Your task to perform on an android device: Open maps Image 0: 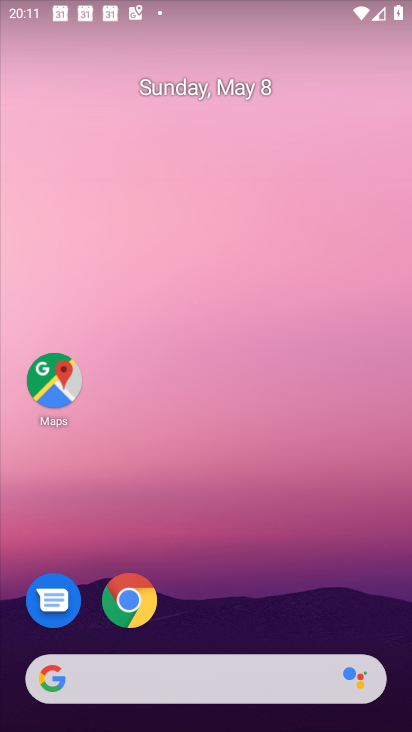
Step 0: drag from (326, 698) to (285, 195)
Your task to perform on an android device: Open maps Image 1: 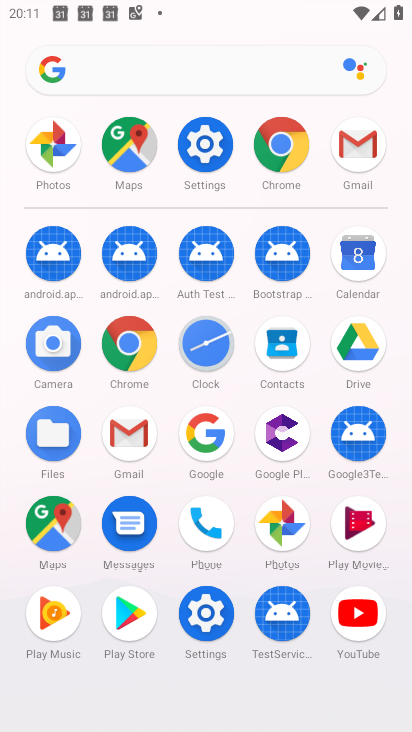
Step 1: click (74, 524)
Your task to perform on an android device: Open maps Image 2: 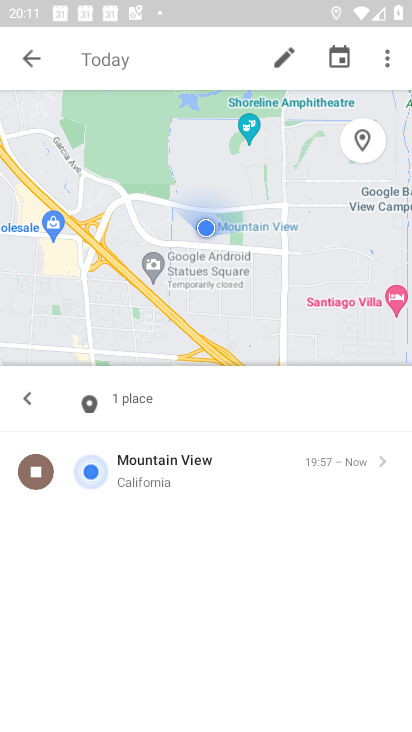
Step 2: click (28, 63)
Your task to perform on an android device: Open maps Image 3: 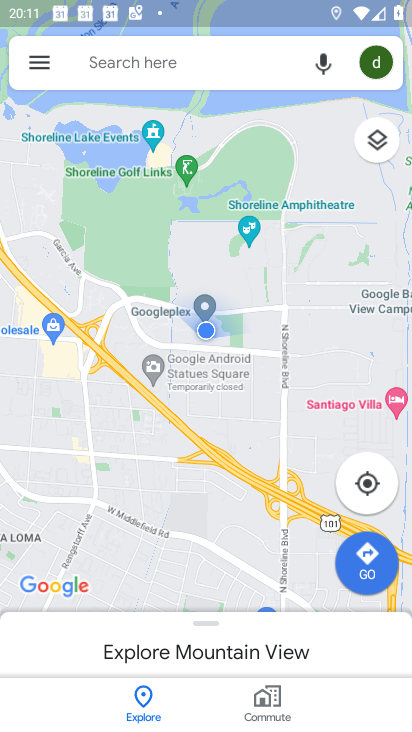
Step 3: task complete